Your task to perform on an android device: Play the last video I watched on Youtube Image 0: 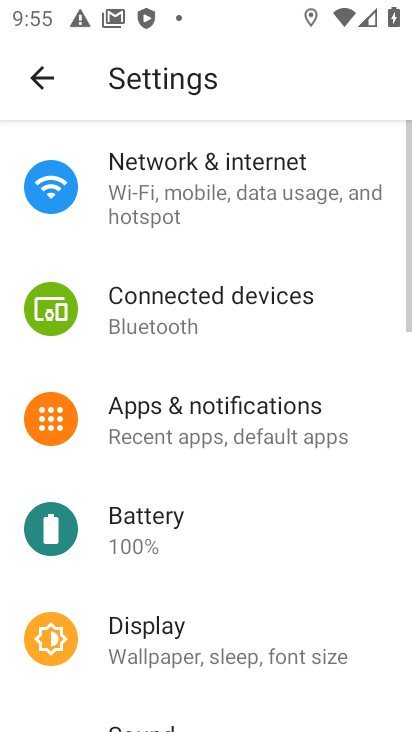
Step 0: press home button
Your task to perform on an android device: Play the last video I watched on Youtube Image 1: 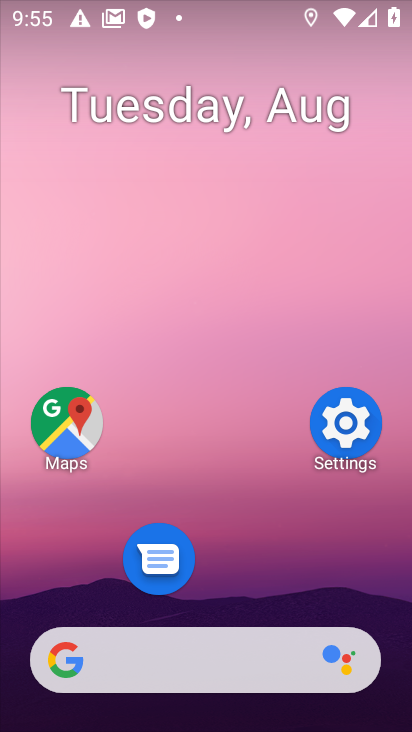
Step 1: drag from (211, 649) to (369, 25)
Your task to perform on an android device: Play the last video I watched on Youtube Image 2: 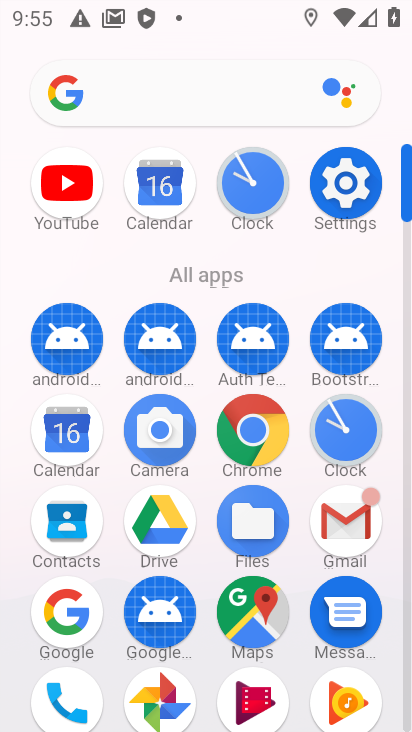
Step 2: click (66, 186)
Your task to perform on an android device: Play the last video I watched on Youtube Image 3: 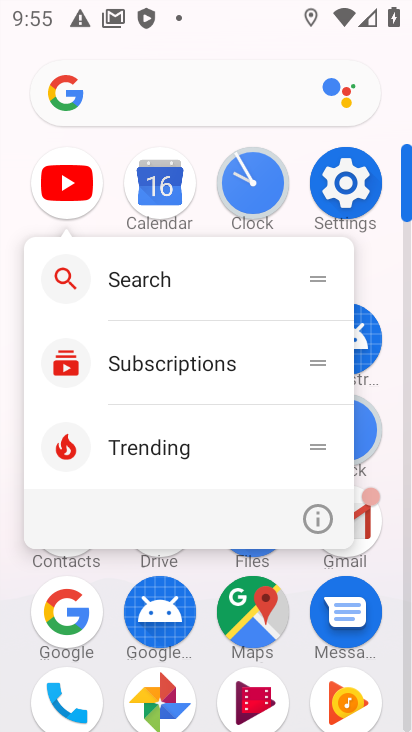
Step 3: click (66, 185)
Your task to perform on an android device: Play the last video I watched on Youtube Image 4: 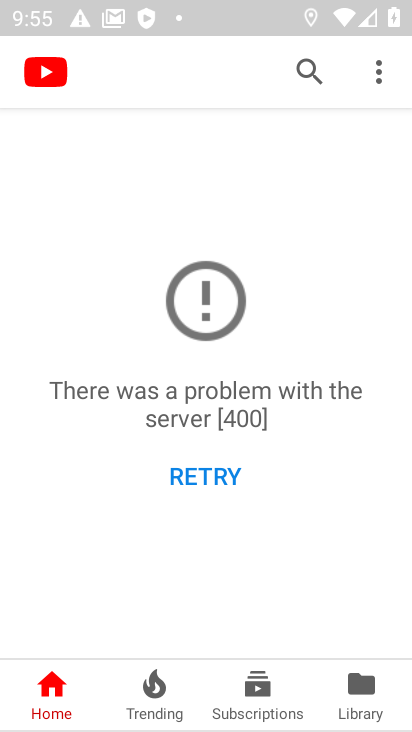
Step 4: click (223, 470)
Your task to perform on an android device: Play the last video I watched on Youtube Image 5: 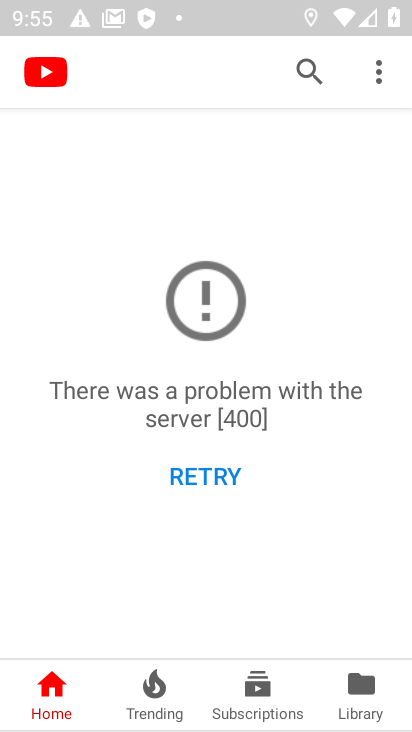
Step 5: click (359, 694)
Your task to perform on an android device: Play the last video I watched on Youtube Image 6: 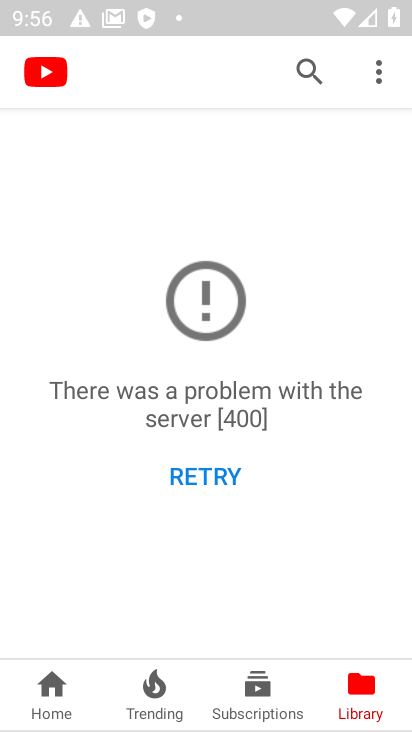
Step 6: click (210, 469)
Your task to perform on an android device: Play the last video I watched on Youtube Image 7: 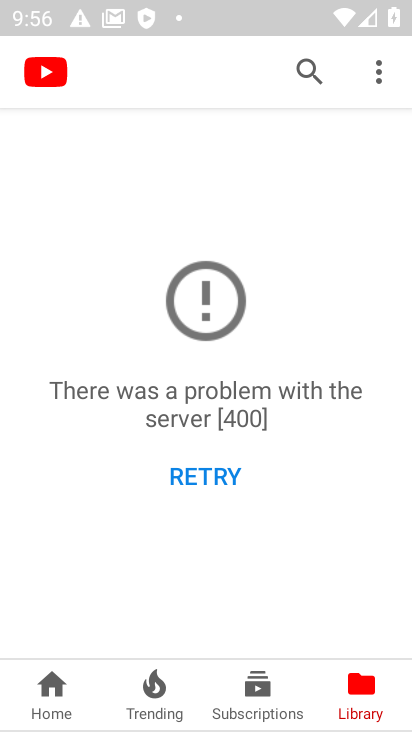
Step 7: click (210, 469)
Your task to perform on an android device: Play the last video I watched on Youtube Image 8: 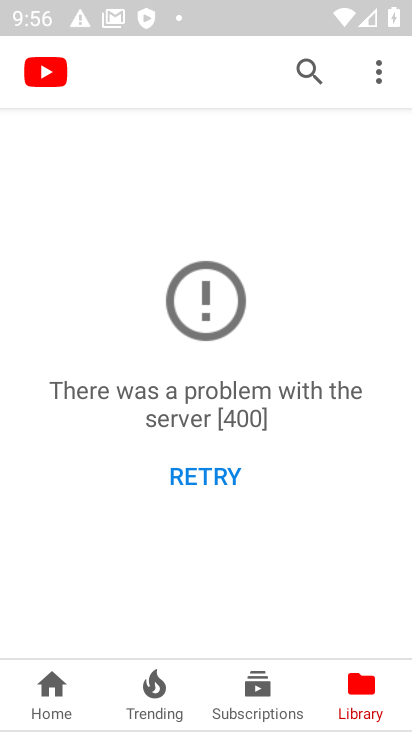
Step 8: task complete